Your task to perform on an android device: Is it going to rain tomorrow? Image 0: 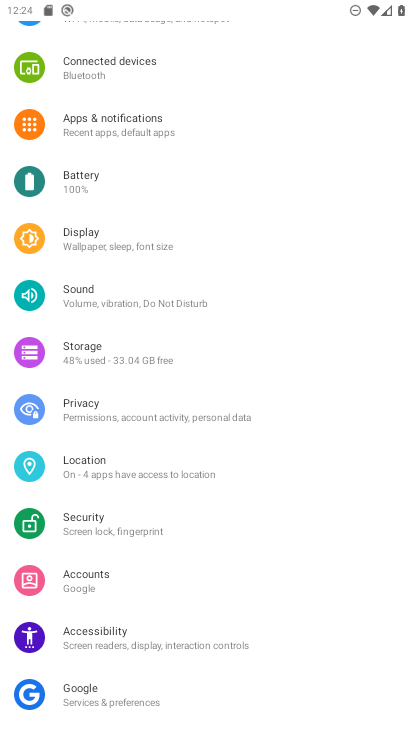
Step 0: press home button
Your task to perform on an android device: Is it going to rain tomorrow? Image 1: 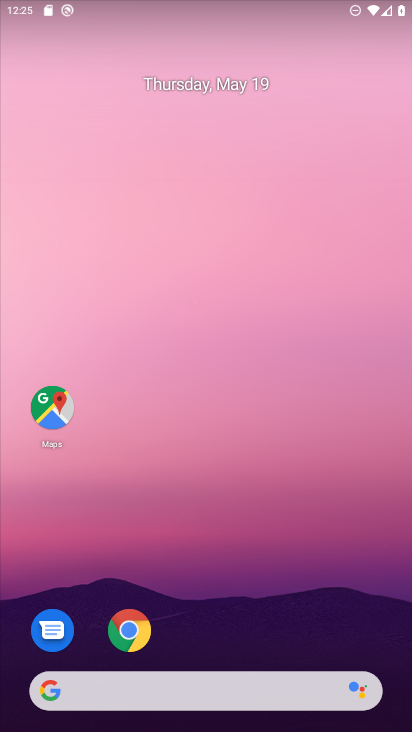
Step 1: click (128, 631)
Your task to perform on an android device: Is it going to rain tomorrow? Image 2: 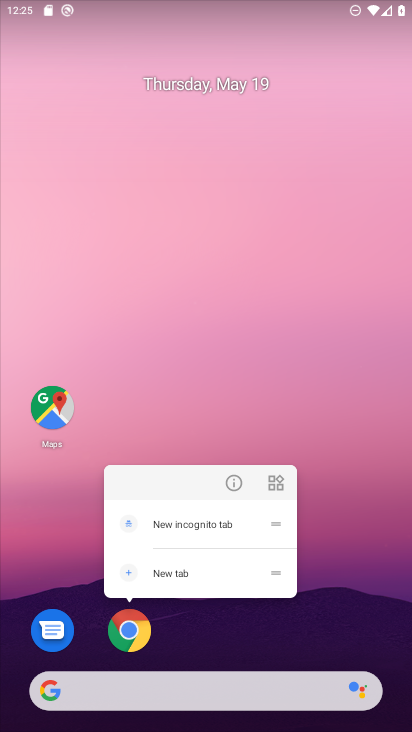
Step 2: click (234, 482)
Your task to perform on an android device: Is it going to rain tomorrow? Image 3: 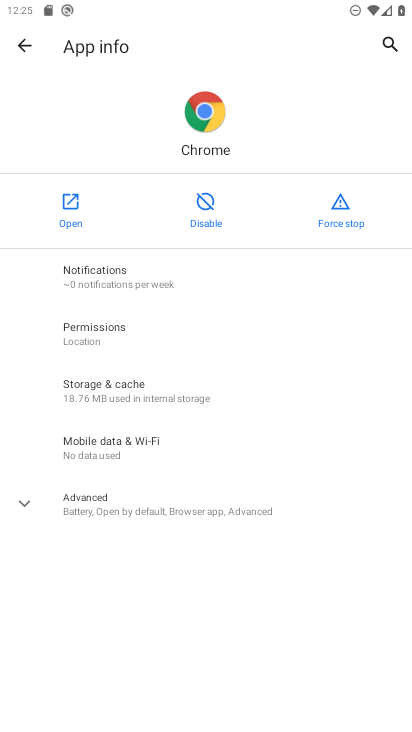
Step 3: click (75, 208)
Your task to perform on an android device: Is it going to rain tomorrow? Image 4: 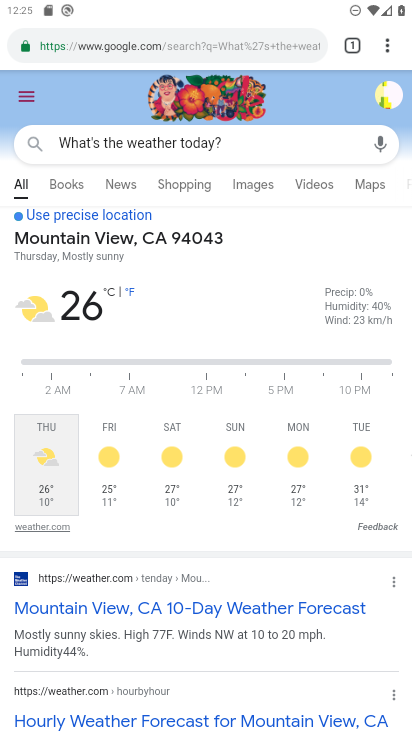
Step 4: click (151, 51)
Your task to perform on an android device: Is it going to rain tomorrow? Image 5: 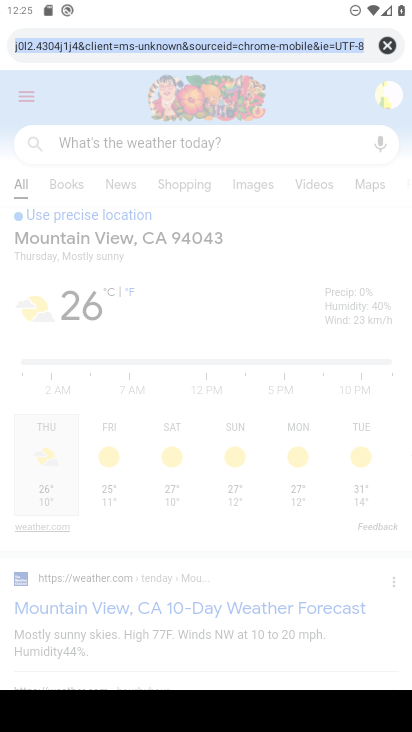
Step 5: type "Is it going to rain tomorrow?"
Your task to perform on an android device: Is it going to rain tomorrow? Image 6: 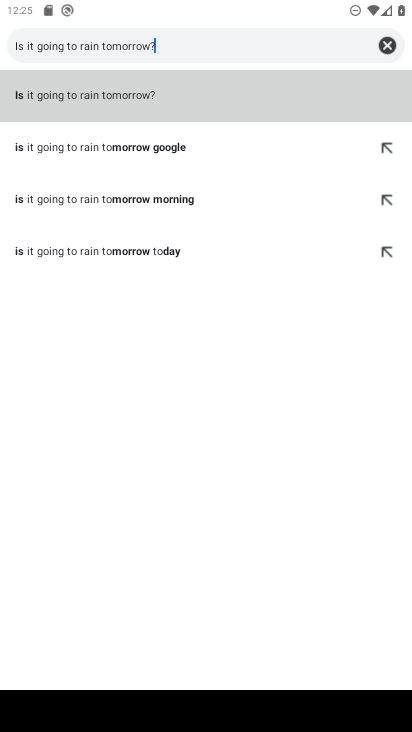
Step 6: click (96, 111)
Your task to perform on an android device: Is it going to rain tomorrow? Image 7: 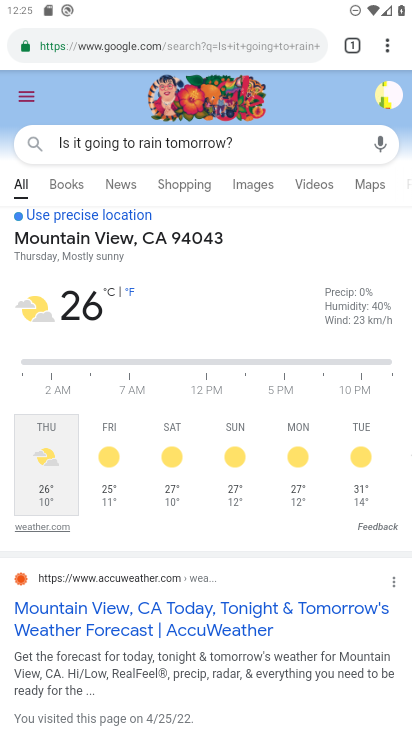
Step 7: task complete